Your task to perform on an android device: Open Google Chrome and click the shortcut for Amazon.com Image 0: 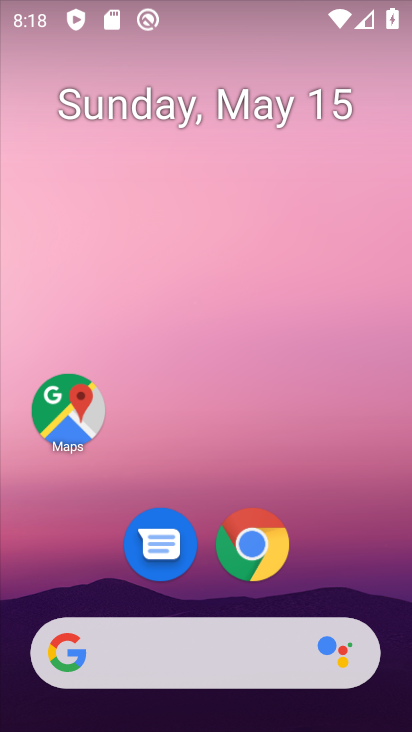
Step 0: click (267, 546)
Your task to perform on an android device: Open Google Chrome and click the shortcut for Amazon.com Image 1: 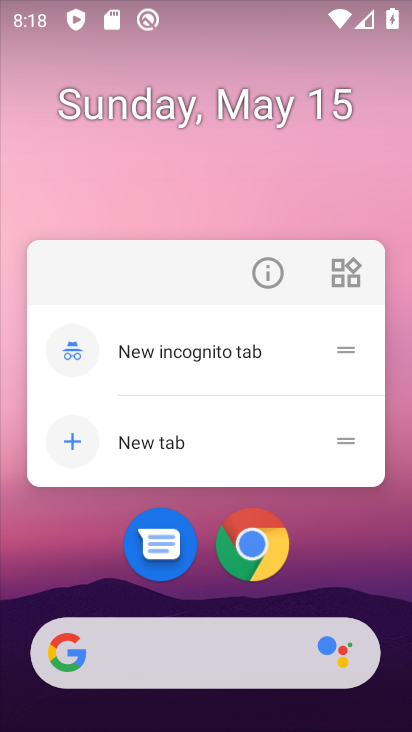
Step 1: click (252, 542)
Your task to perform on an android device: Open Google Chrome and click the shortcut for Amazon.com Image 2: 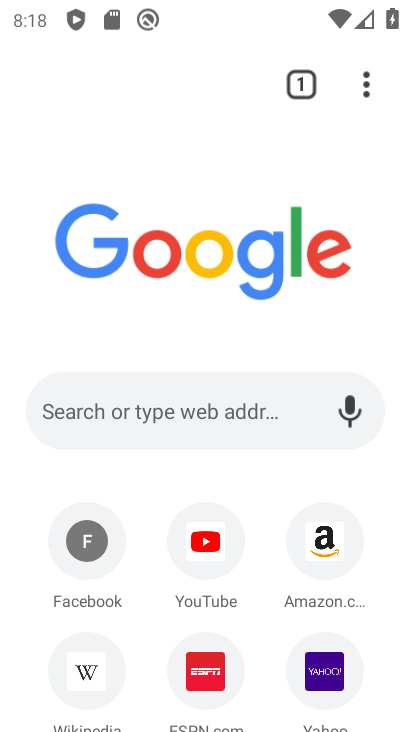
Step 2: click (336, 548)
Your task to perform on an android device: Open Google Chrome and click the shortcut for Amazon.com Image 3: 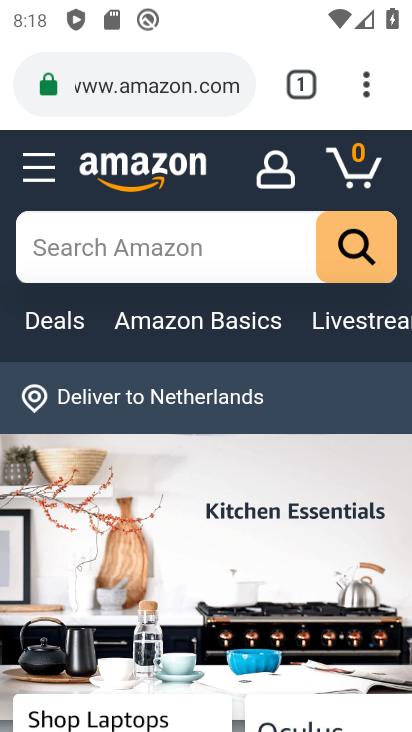
Step 3: task complete